Your task to perform on an android device: Show me the alarms in the clock app Image 0: 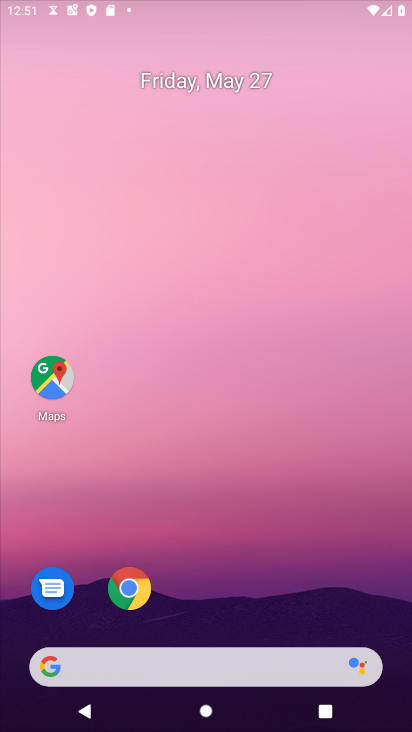
Step 0: press home button
Your task to perform on an android device: Show me the alarms in the clock app Image 1: 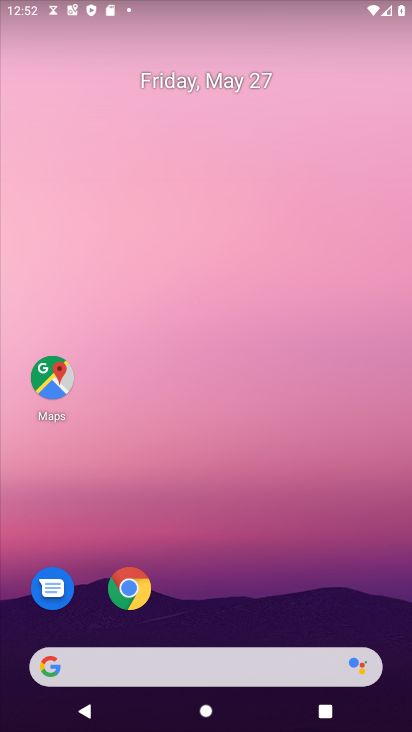
Step 1: drag from (219, 622) to (258, 71)
Your task to perform on an android device: Show me the alarms in the clock app Image 2: 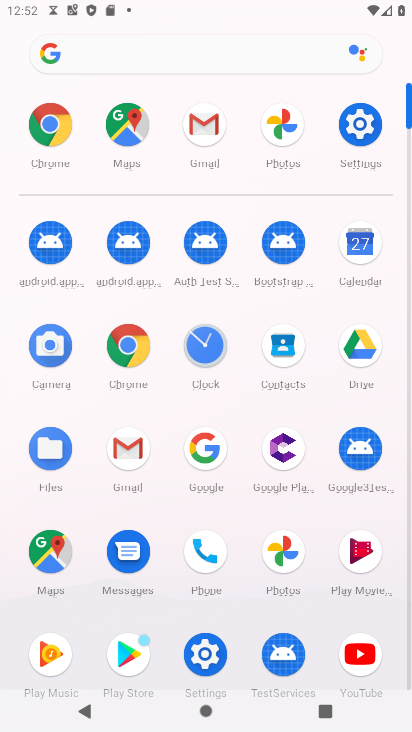
Step 2: click (205, 338)
Your task to perform on an android device: Show me the alarms in the clock app Image 3: 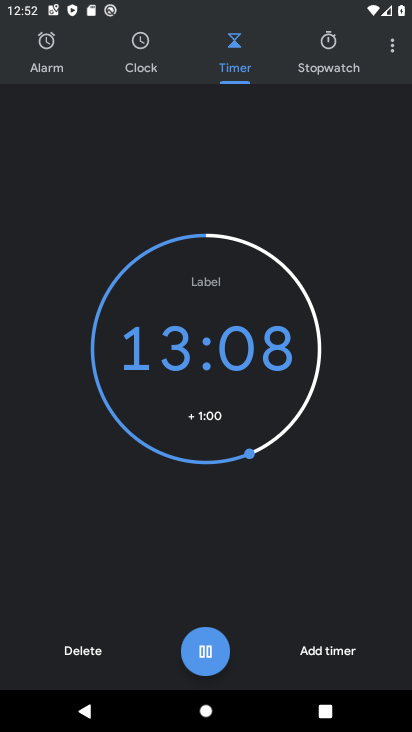
Step 3: click (93, 651)
Your task to perform on an android device: Show me the alarms in the clock app Image 4: 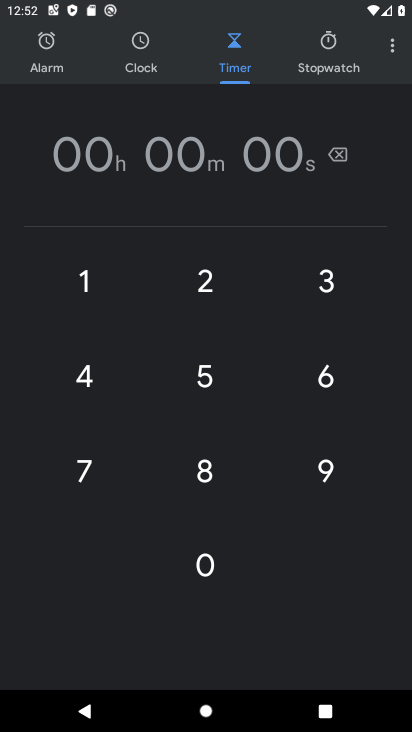
Step 4: click (37, 39)
Your task to perform on an android device: Show me the alarms in the clock app Image 5: 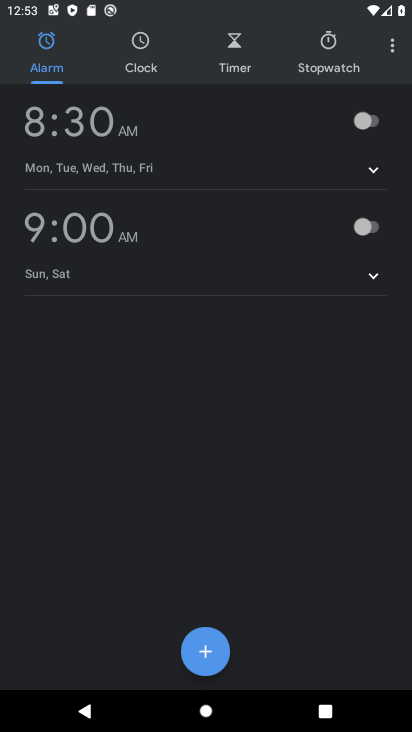
Step 5: click (374, 114)
Your task to perform on an android device: Show me the alarms in the clock app Image 6: 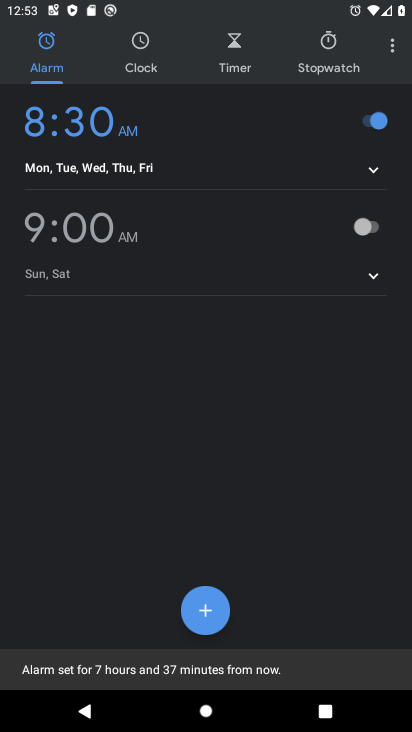
Step 6: task complete